Your task to perform on an android device: open a bookmark in the chrome app Image 0: 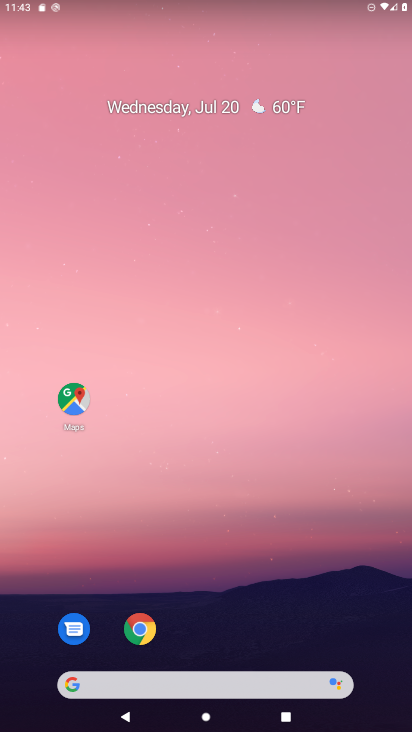
Step 0: click (158, 630)
Your task to perform on an android device: open a bookmark in the chrome app Image 1: 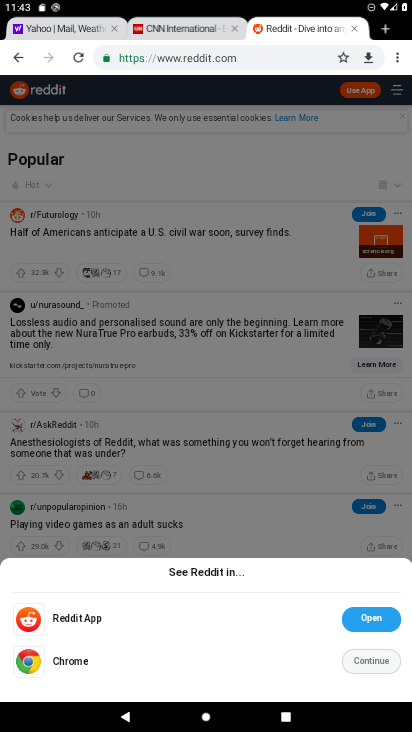
Step 1: click (404, 52)
Your task to perform on an android device: open a bookmark in the chrome app Image 2: 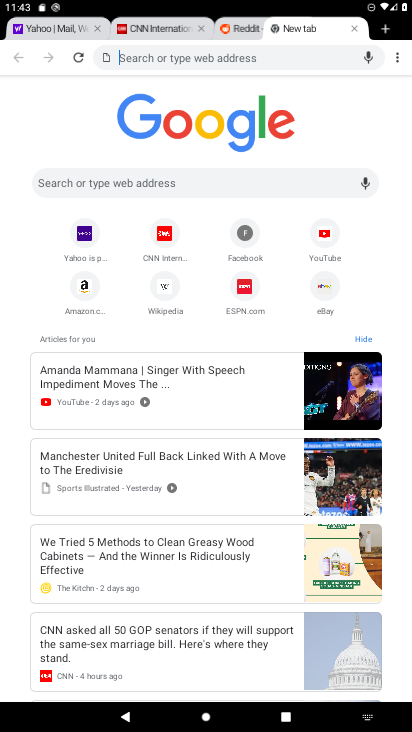
Step 2: drag from (400, 63) to (308, 113)
Your task to perform on an android device: open a bookmark in the chrome app Image 3: 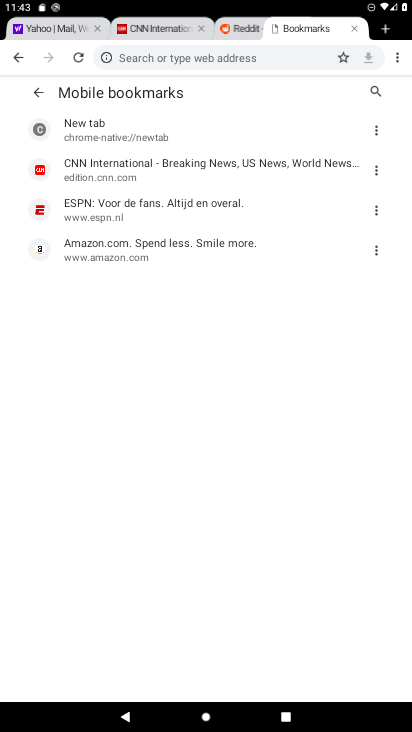
Step 3: click (195, 178)
Your task to perform on an android device: open a bookmark in the chrome app Image 4: 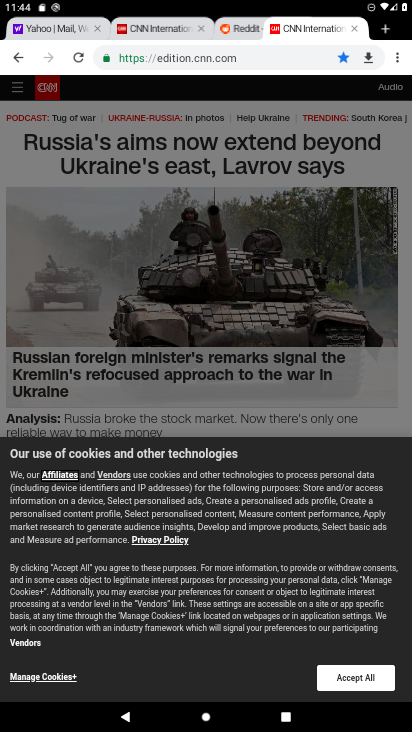
Step 4: task complete